Your task to perform on an android device: Add "duracell triple a" to the cart on amazon, then select checkout. Image 0: 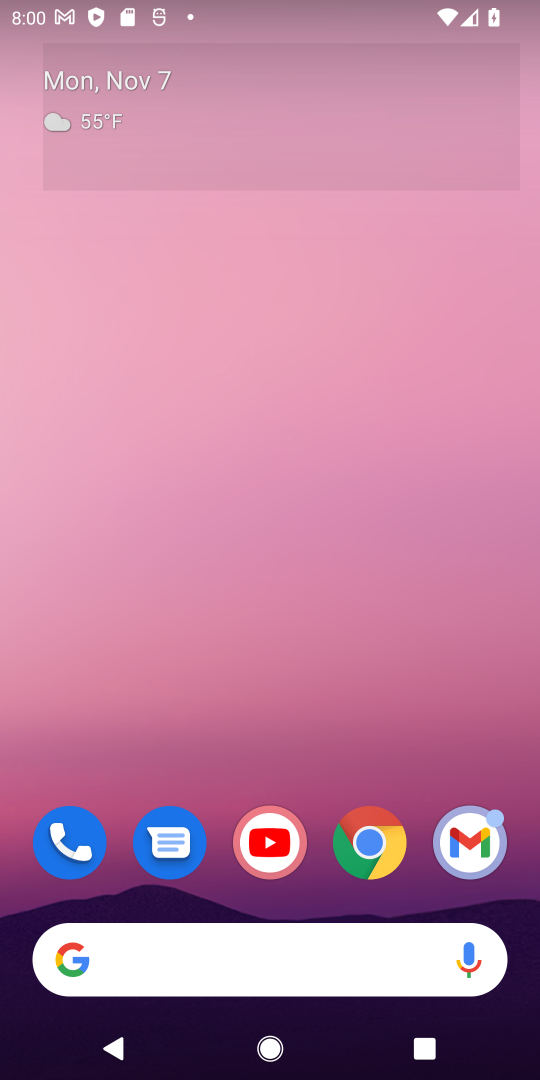
Step 0: click (376, 839)
Your task to perform on an android device: Add "duracell triple a" to the cart on amazon, then select checkout. Image 1: 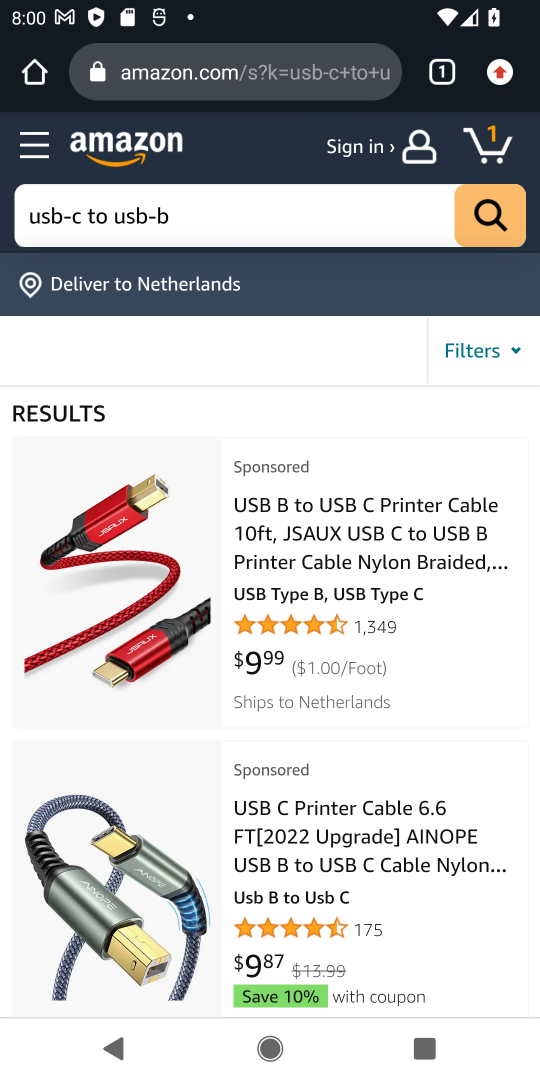
Step 1: click (264, 208)
Your task to perform on an android device: Add "duracell triple a" to the cart on amazon, then select checkout. Image 2: 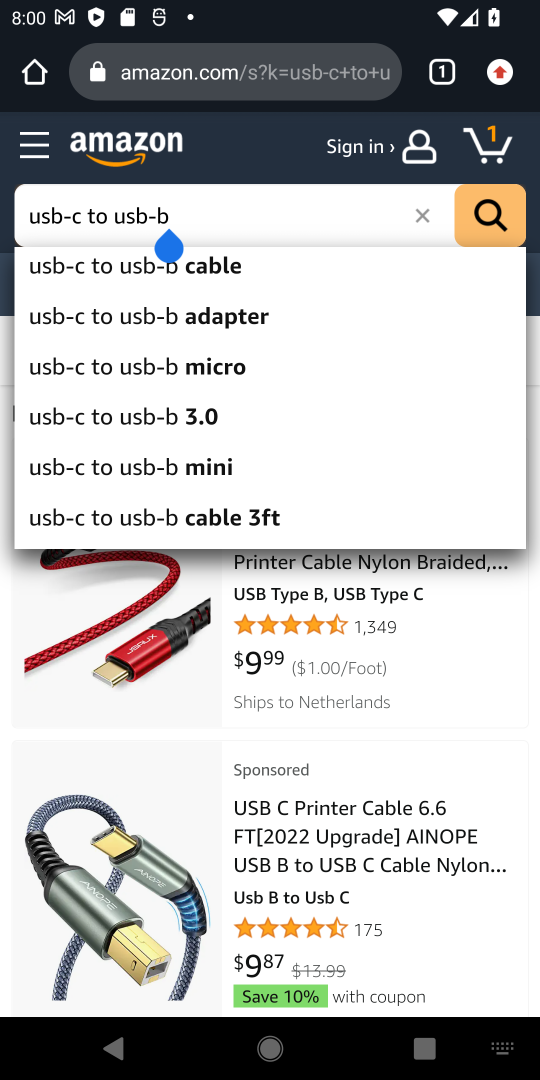
Step 2: click (415, 208)
Your task to perform on an android device: Add "duracell triple a" to the cart on amazon, then select checkout. Image 3: 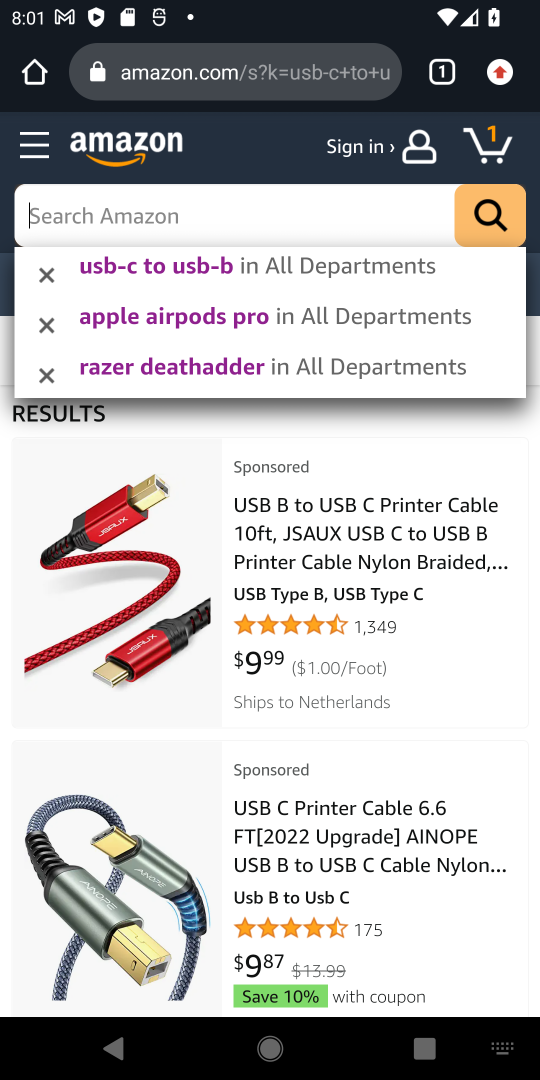
Step 3: type "duracell triple a"
Your task to perform on an android device: Add "duracell triple a" to the cart on amazon, then select checkout. Image 4: 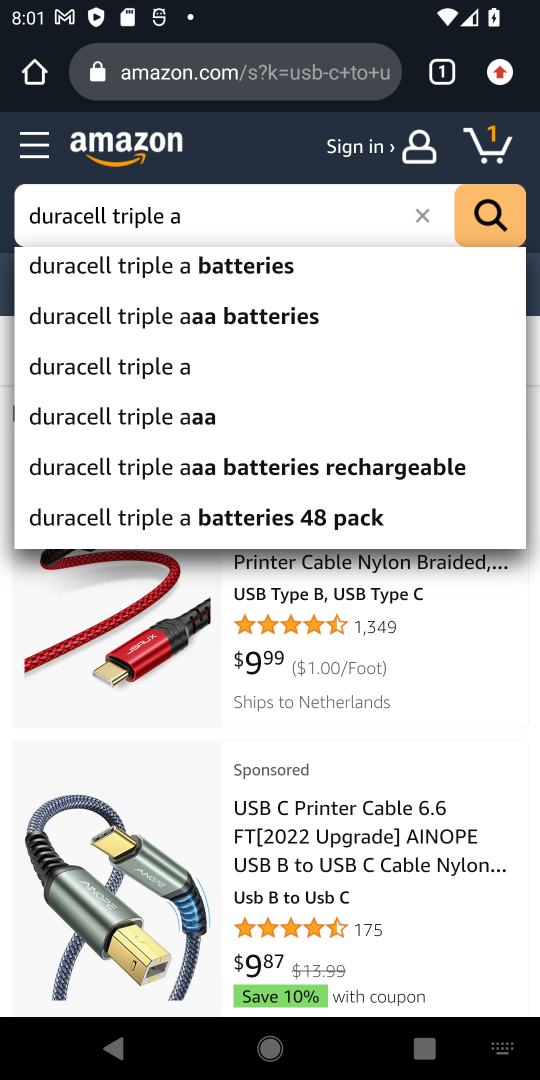
Step 4: press enter
Your task to perform on an android device: Add "duracell triple a" to the cart on amazon, then select checkout. Image 5: 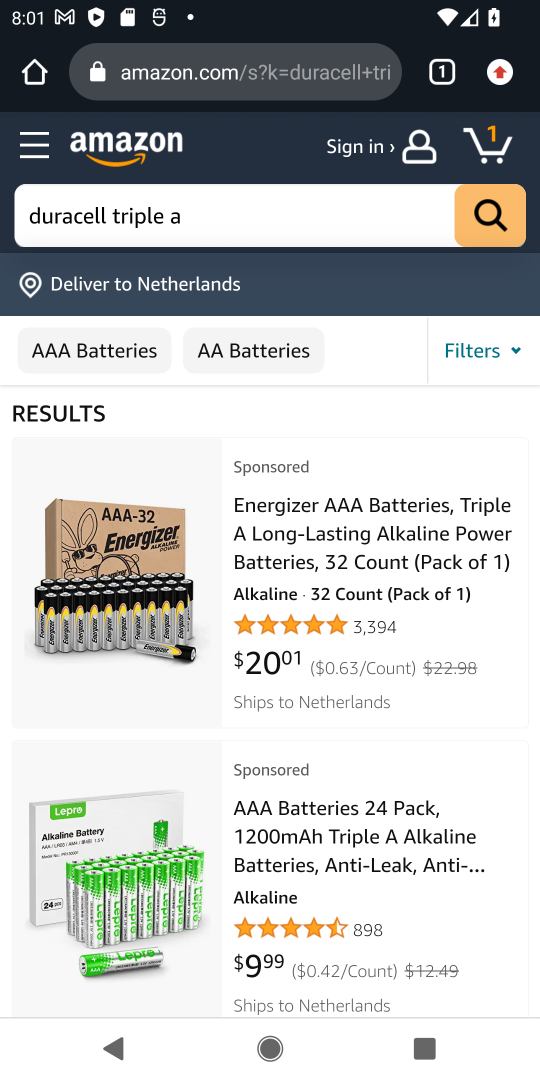
Step 5: drag from (347, 894) to (392, 611)
Your task to perform on an android device: Add "duracell triple a" to the cart on amazon, then select checkout. Image 6: 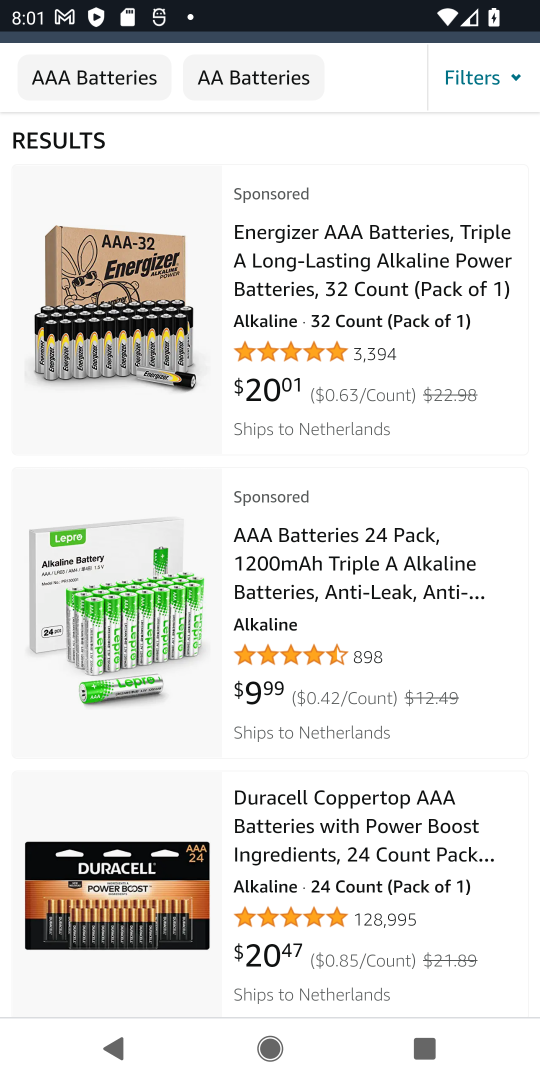
Step 6: drag from (400, 868) to (380, 642)
Your task to perform on an android device: Add "duracell triple a" to the cart on amazon, then select checkout. Image 7: 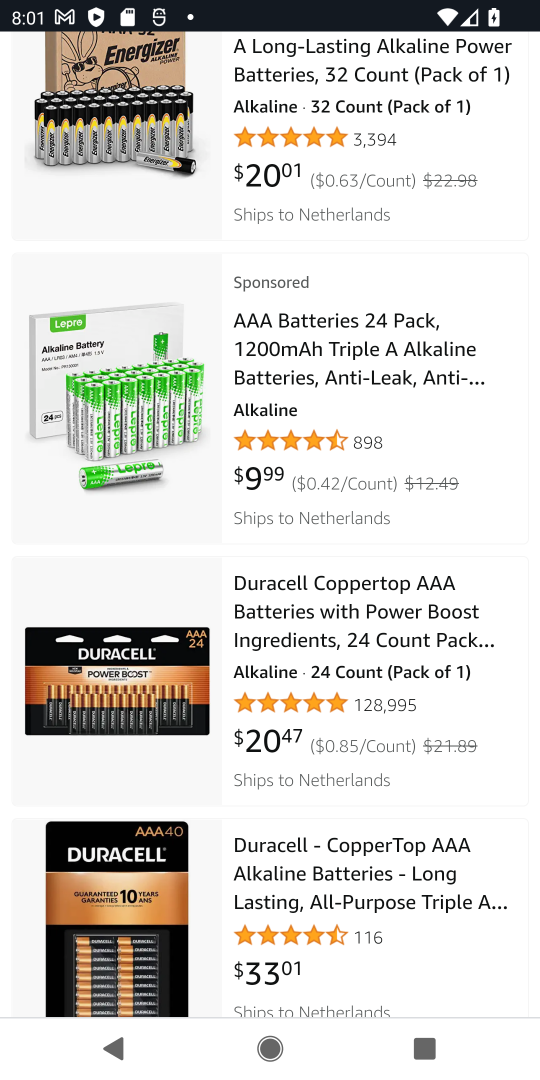
Step 7: click (322, 643)
Your task to perform on an android device: Add "duracell triple a" to the cart on amazon, then select checkout. Image 8: 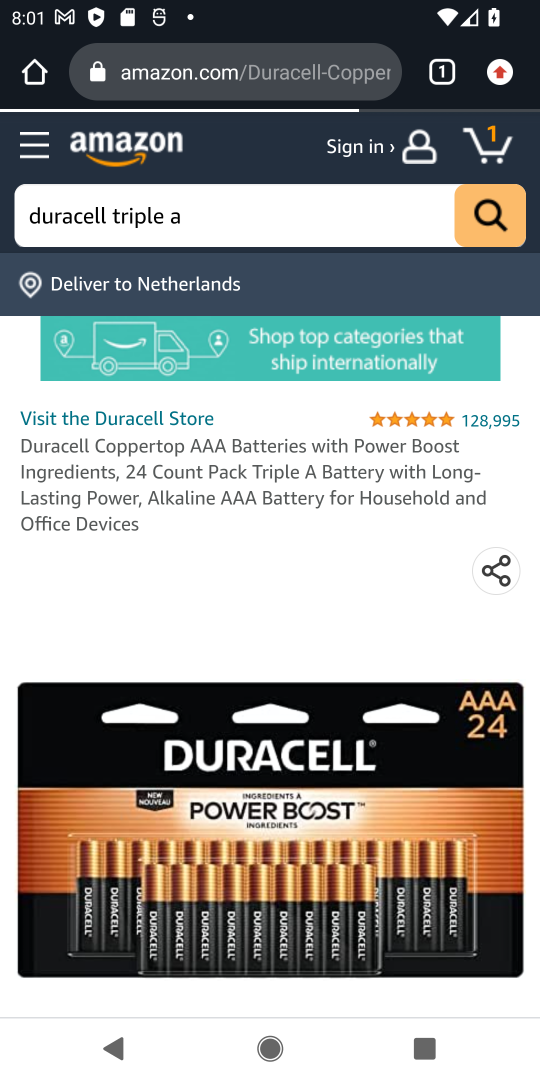
Step 8: drag from (246, 674) to (421, 96)
Your task to perform on an android device: Add "duracell triple a" to the cart on amazon, then select checkout. Image 9: 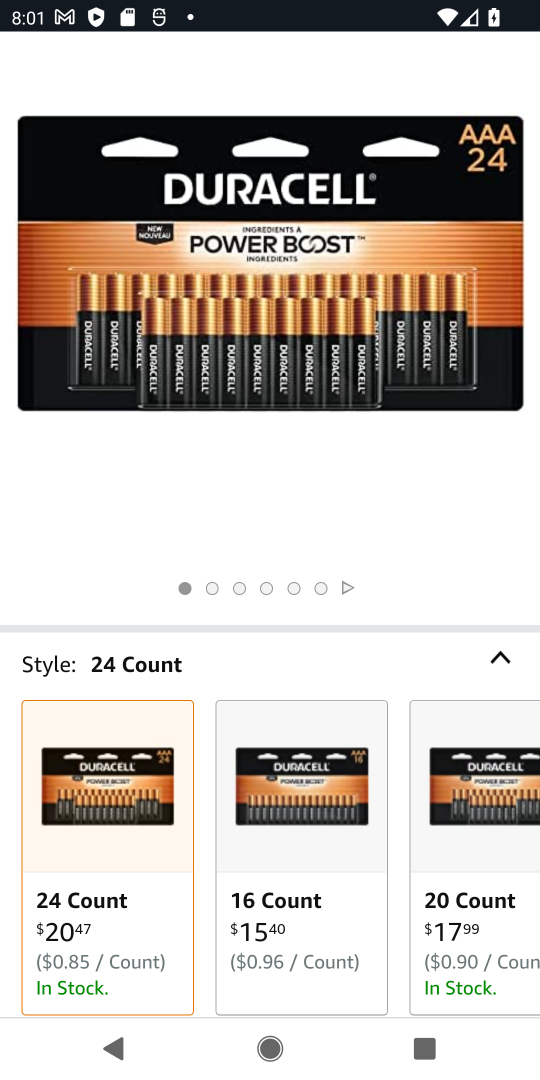
Step 9: drag from (193, 908) to (418, 145)
Your task to perform on an android device: Add "duracell triple a" to the cart on amazon, then select checkout. Image 10: 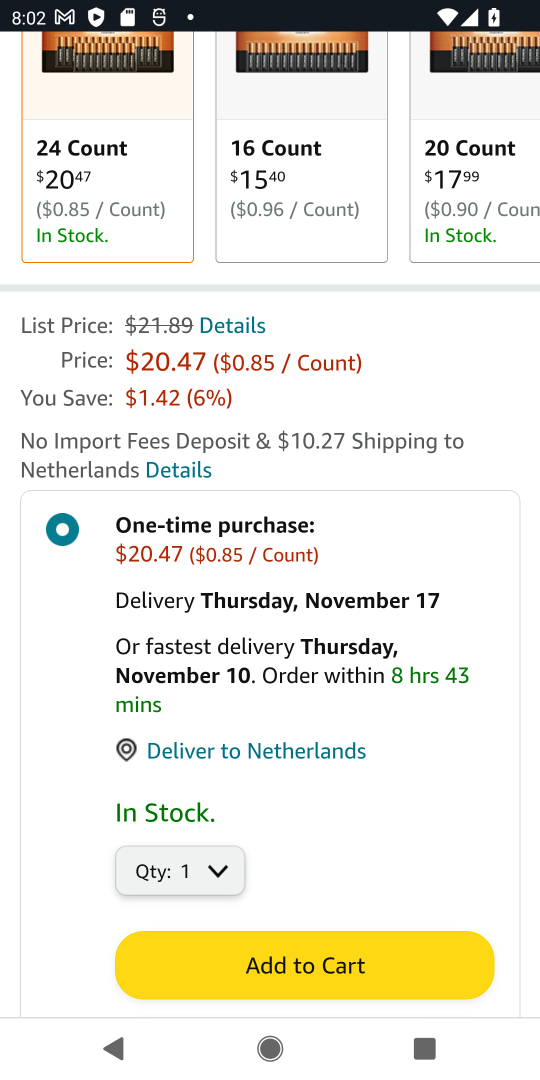
Step 10: click (294, 961)
Your task to perform on an android device: Add "duracell triple a" to the cart on amazon, then select checkout. Image 11: 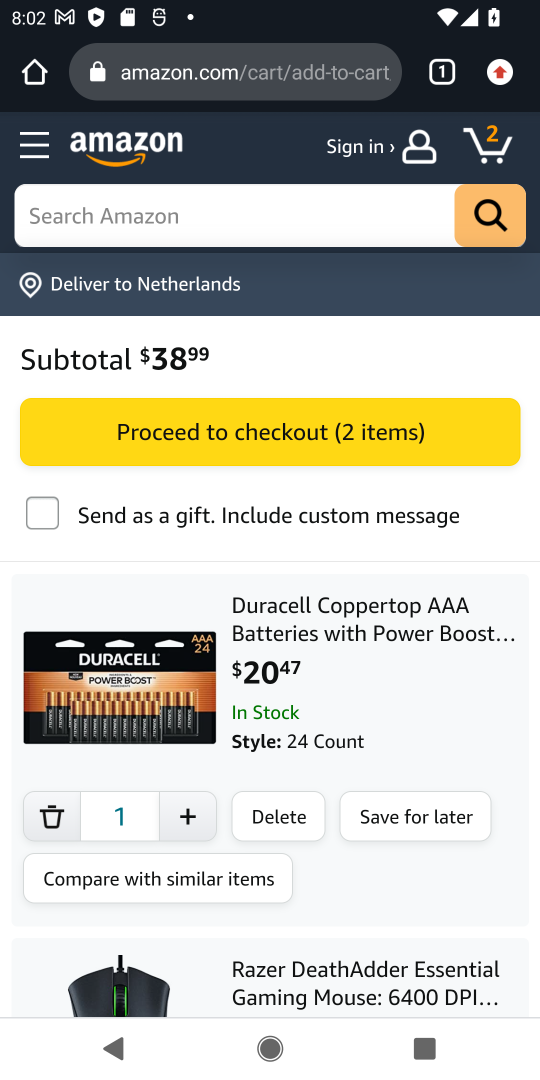
Step 11: click (501, 141)
Your task to perform on an android device: Add "duracell triple a" to the cart on amazon, then select checkout. Image 12: 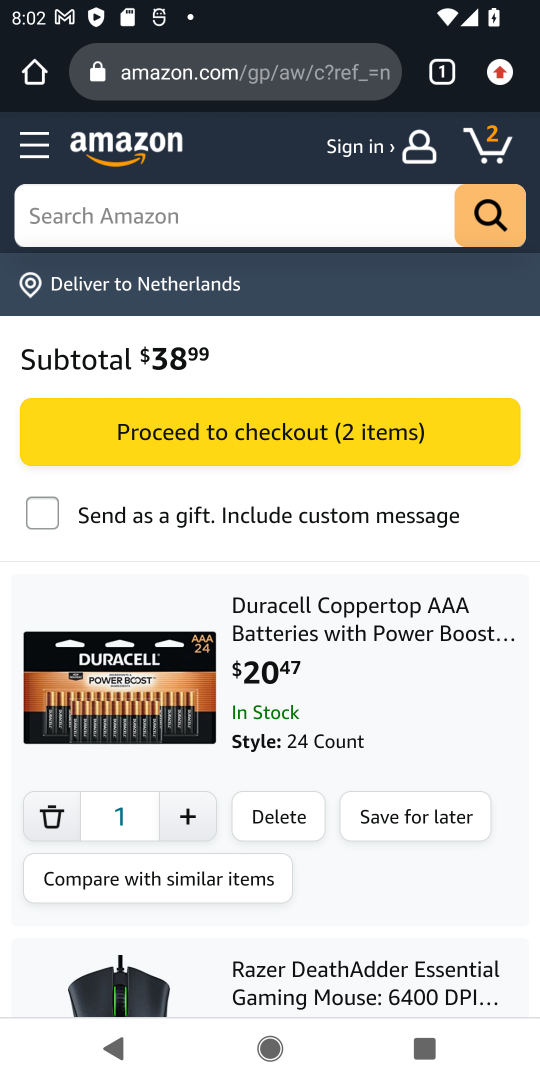
Step 12: drag from (219, 739) to (349, 391)
Your task to perform on an android device: Add "duracell triple a" to the cart on amazon, then select checkout. Image 13: 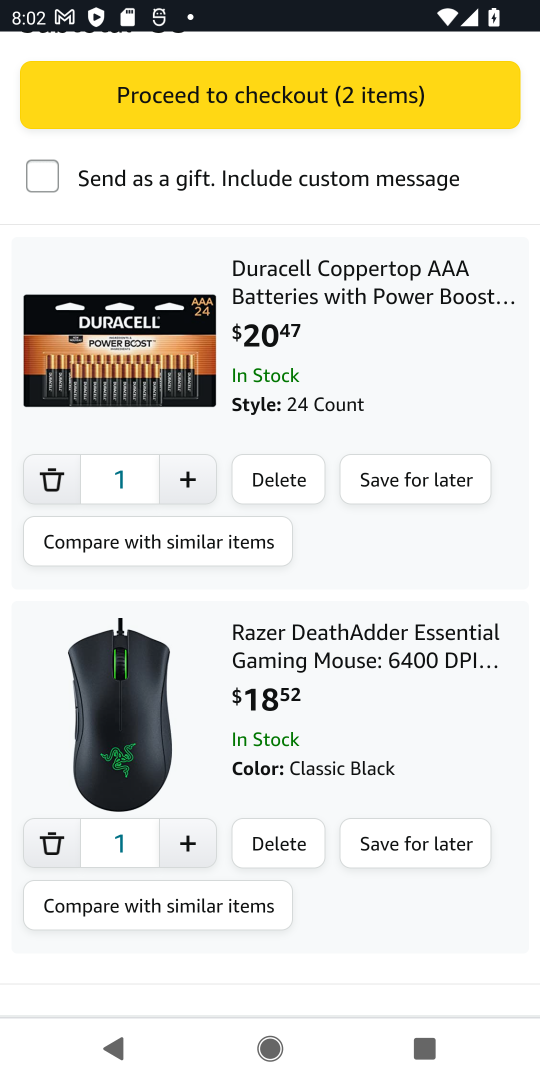
Step 13: click (275, 860)
Your task to perform on an android device: Add "duracell triple a" to the cart on amazon, then select checkout. Image 14: 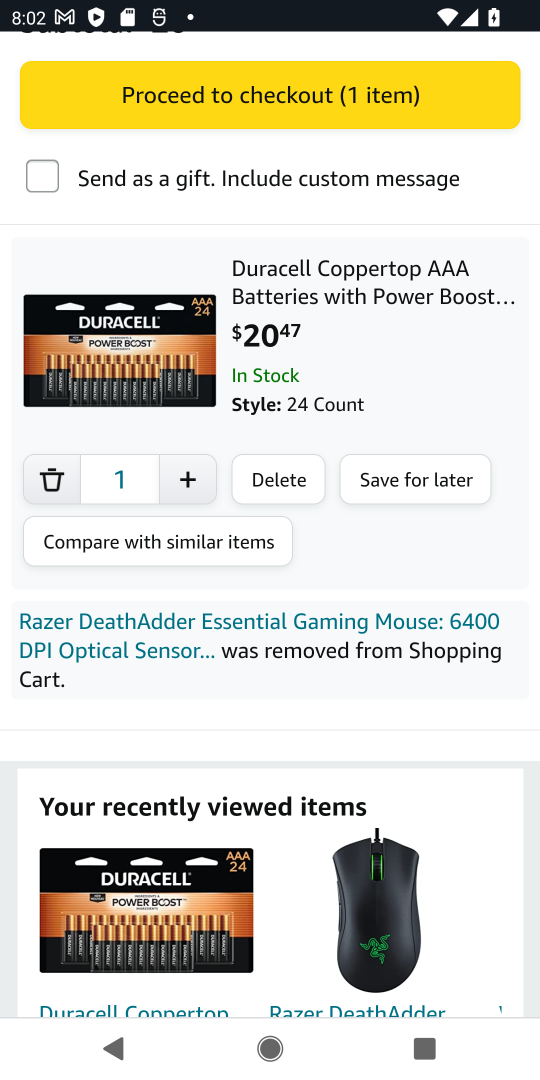
Step 14: click (259, 92)
Your task to perform on an android device: Add "duracell triple a" to the cart on amazon, then select checkout. Image 15: 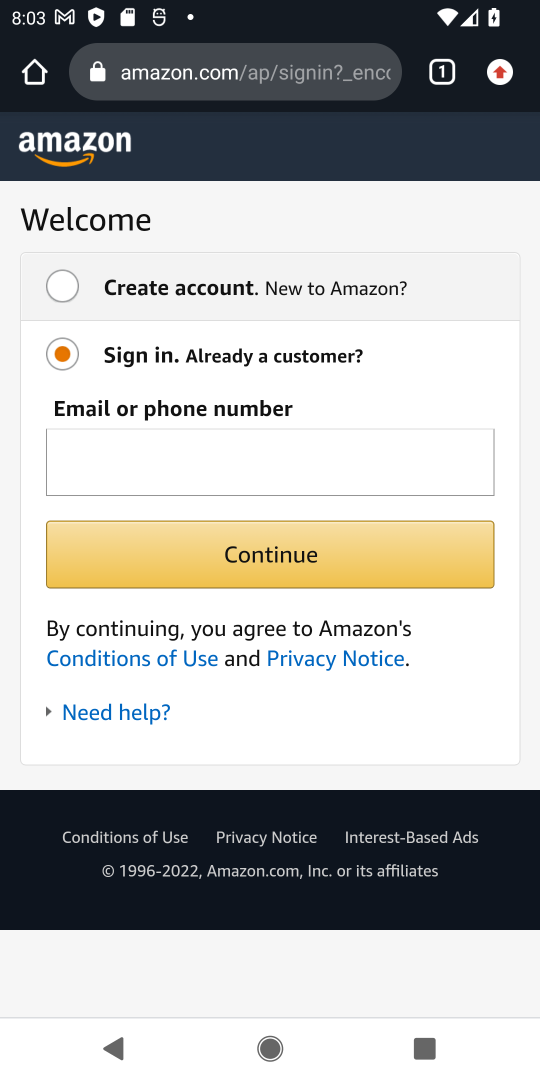
Step 15: task complete